Your task to perform on an android device: open app "Messenger Lite" Image 0: 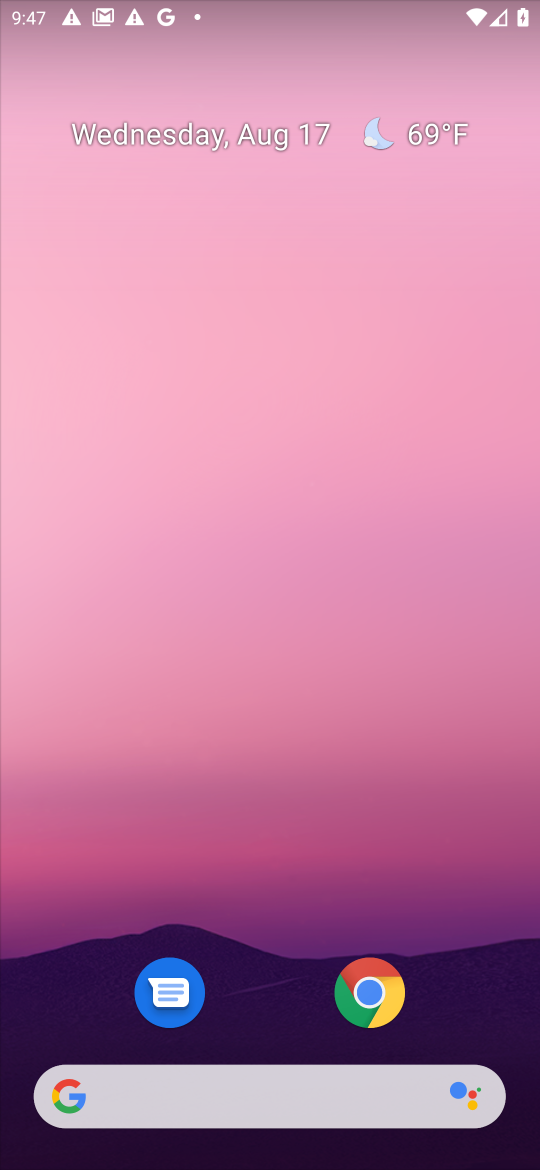
Step 0: drag from (500, 978) to (340, 2)
Your task to perform on an android device: open app "Messenger Lite" Image 1: 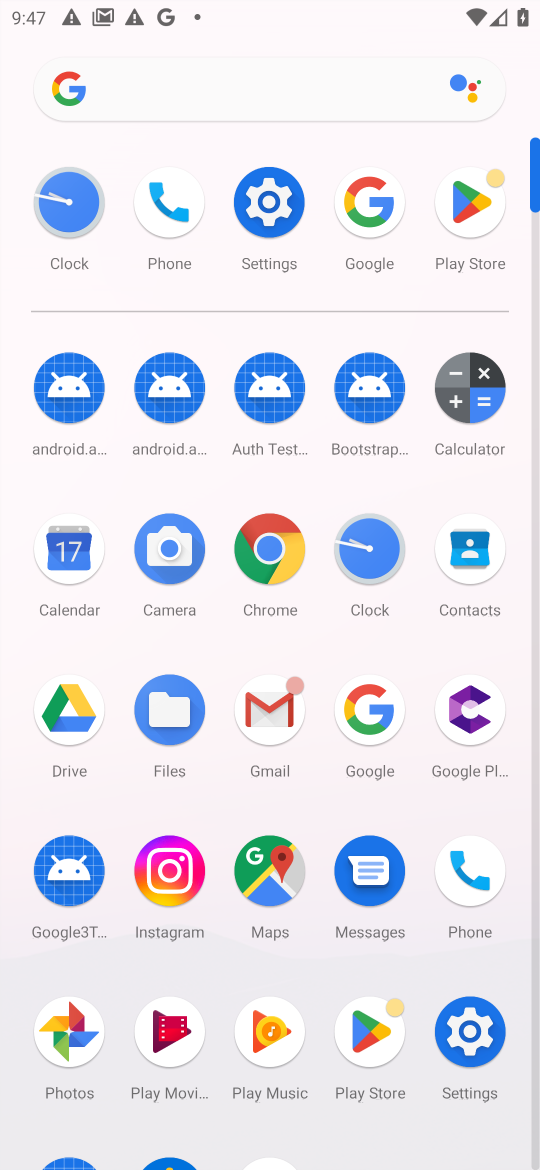
Step 1: click (355, 1015)
Your task to perform on an android device: open app "Messenger Lite" Image 2: 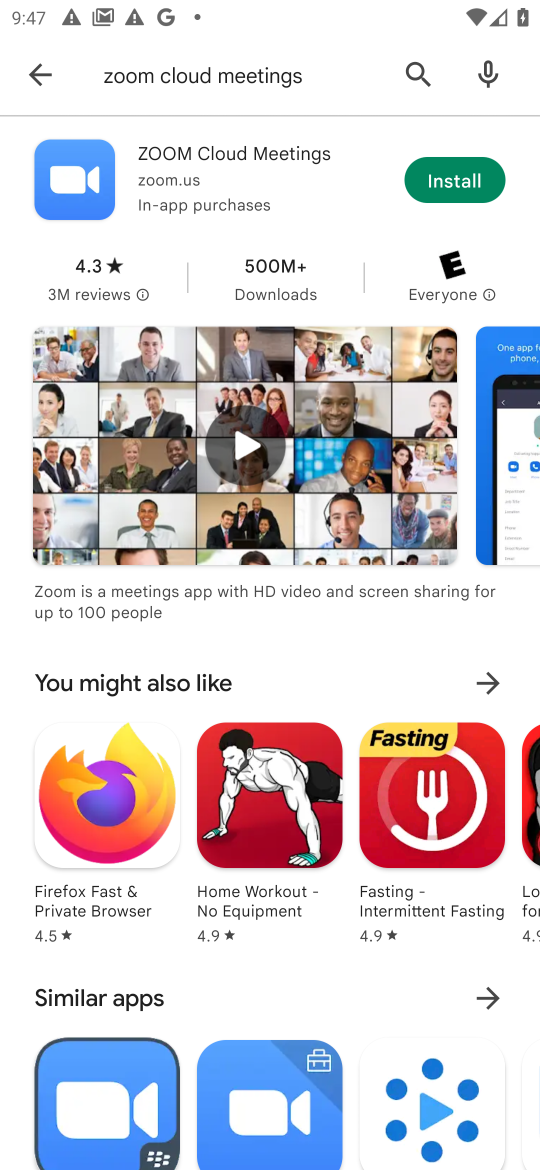
Step 2: press back button
Your task to perform on an android device: open app "Messenger Lite" Image 3: 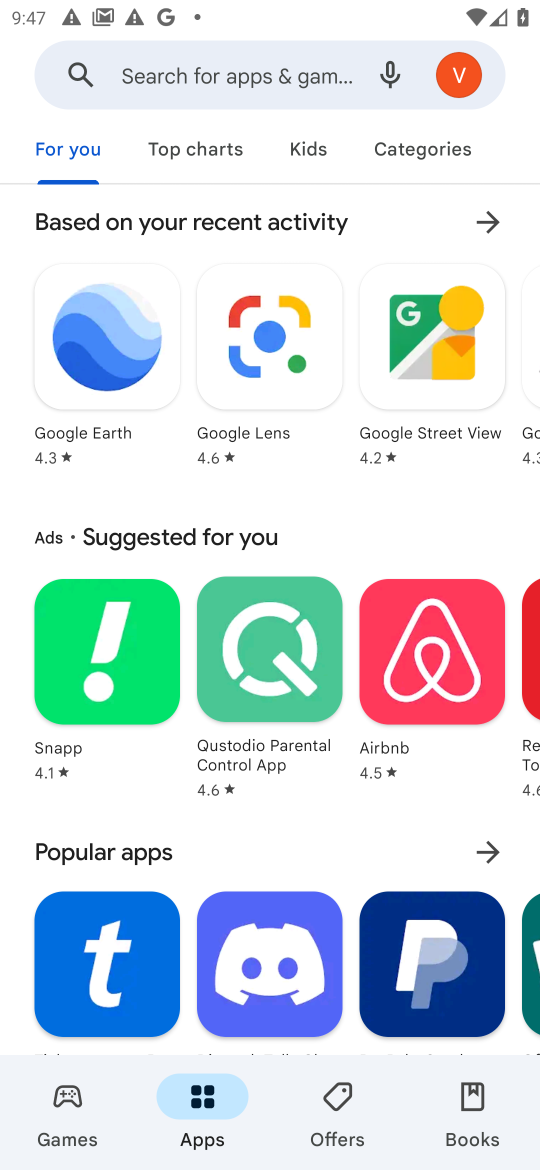
Step 3: click (209, 76)
Your task to perform on an android device: open app "Messenger Lite" Image 4: 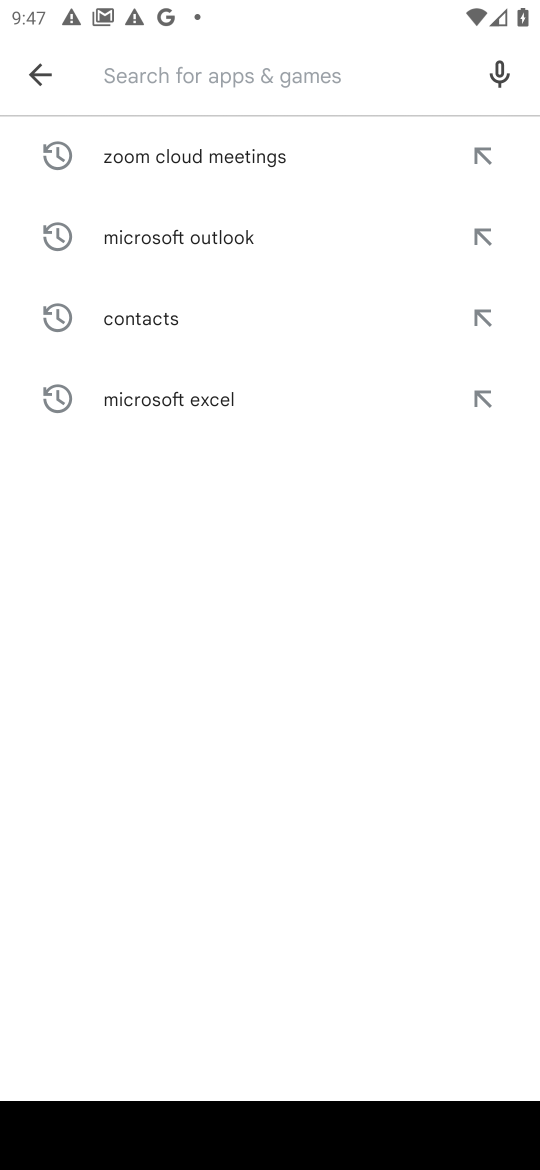
Step 4: type "Messenger Lite"
Your task to perform on an android device: open app "Messenger Lite" Image 5: 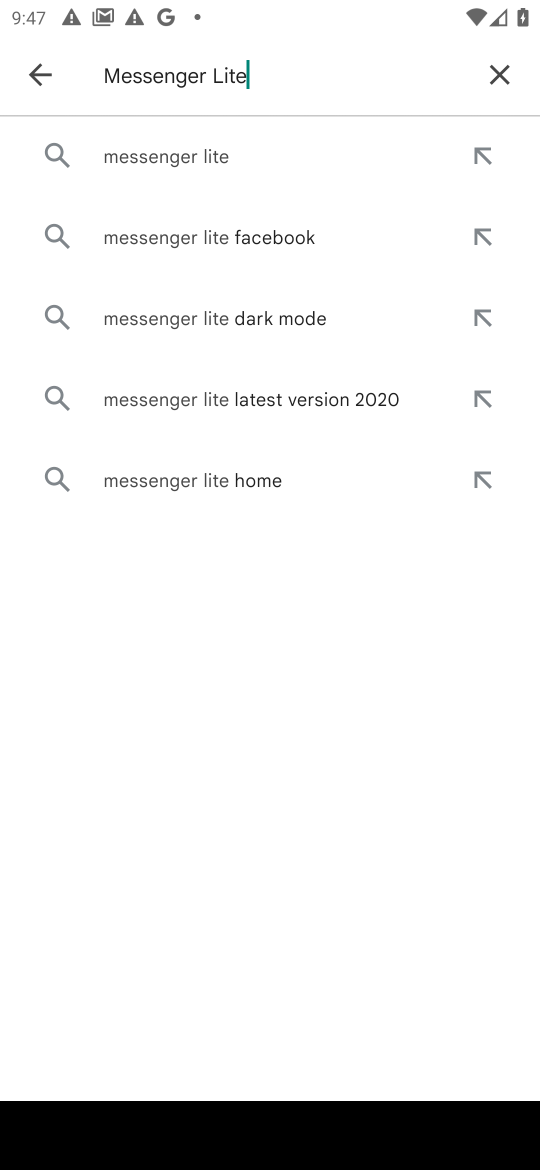
Step 5: click (173, 165)
Your task to perform on an android device: open app "Messenger Lite" Image 6: 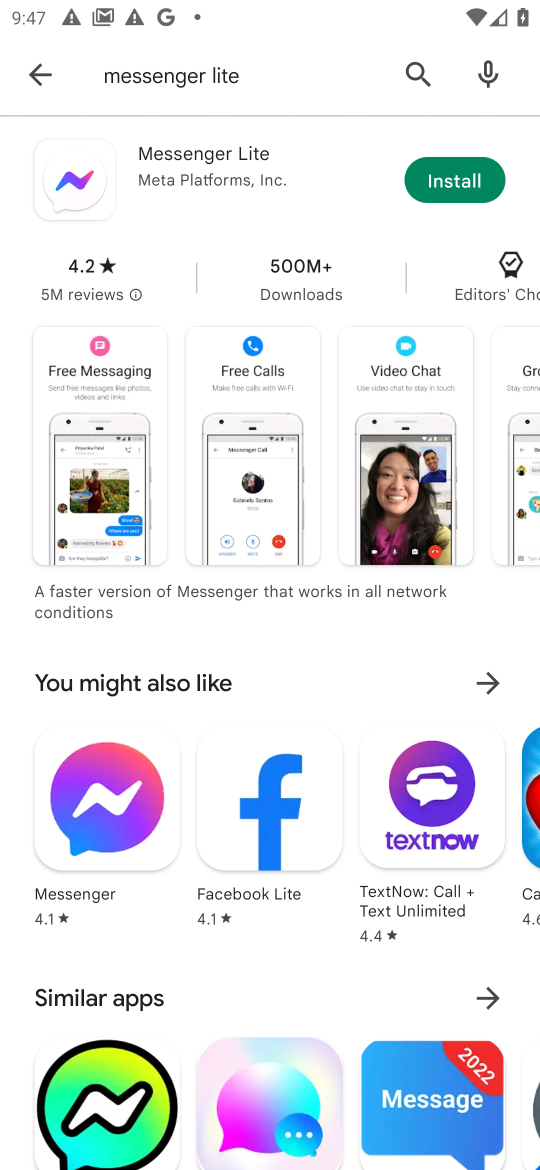
Step 6: task complete